Your task to perform on an android device: Open the web browser Image 0: 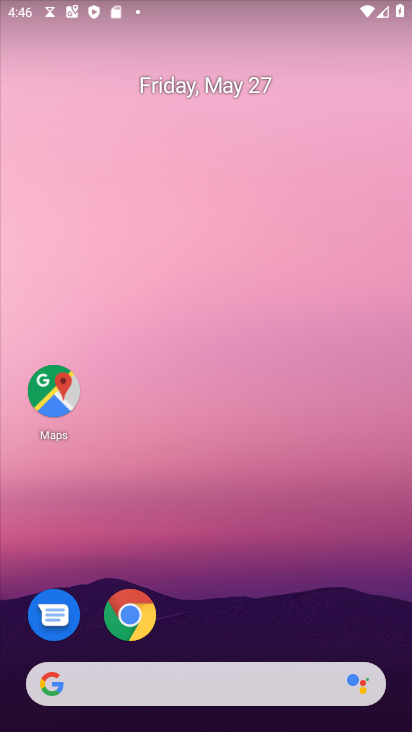
Step 0: drag from (285, 592) to (236, 44)
Your task to perform on an android device: Open the web browser Image 1: 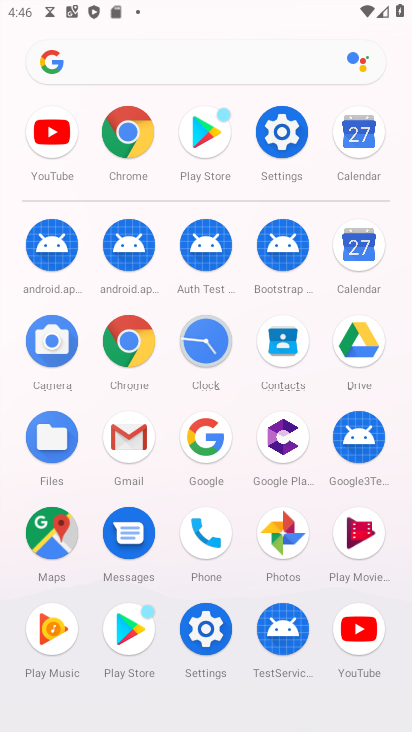
Step 1: click (122, 354)
Your task to perform on an android device: Open the web browser Image 2: 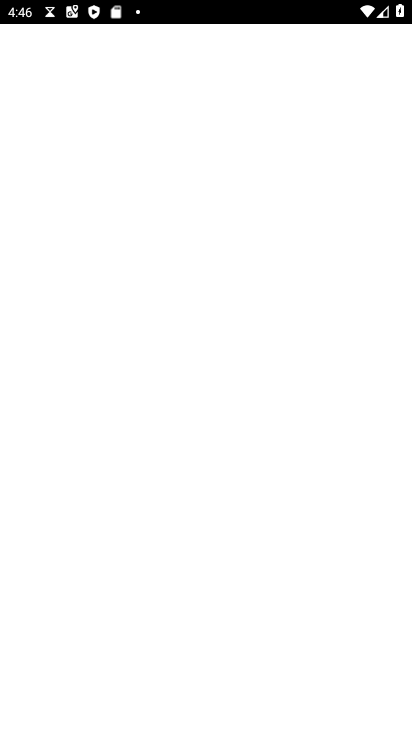
Step 2: task complete